Your task to perform on an android device: choose inbox layout in the gmail app Image 0: 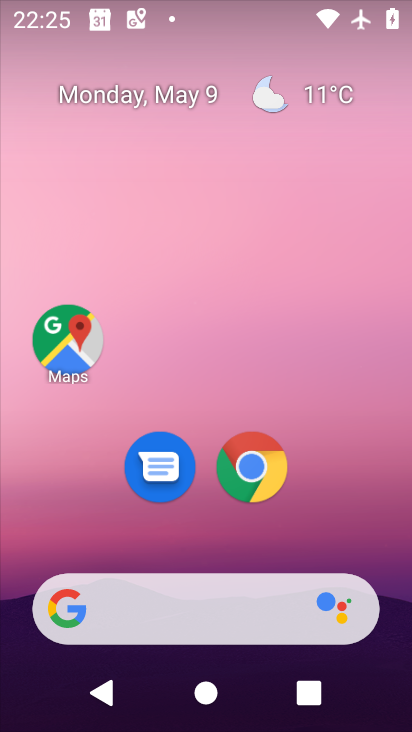
Step 0: drag from (346, 520) to (359, 247)
Your task to perform on an android device: choose inbox layout in the gmail app Image 1: 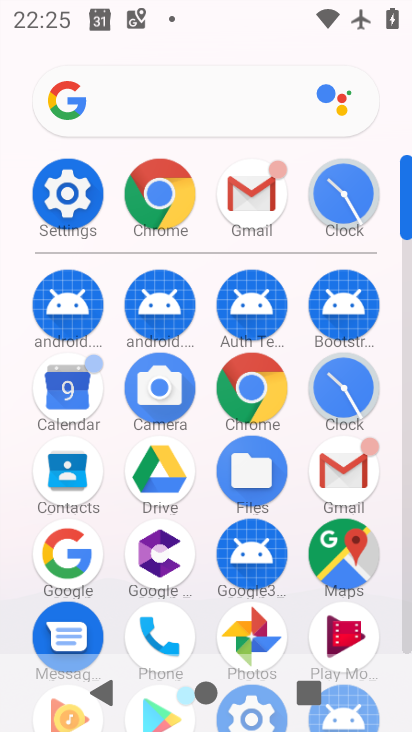
Step 1: click (254, 205)
Your task to perform on an android device: choose inbox layout in the gmail app Image 2: 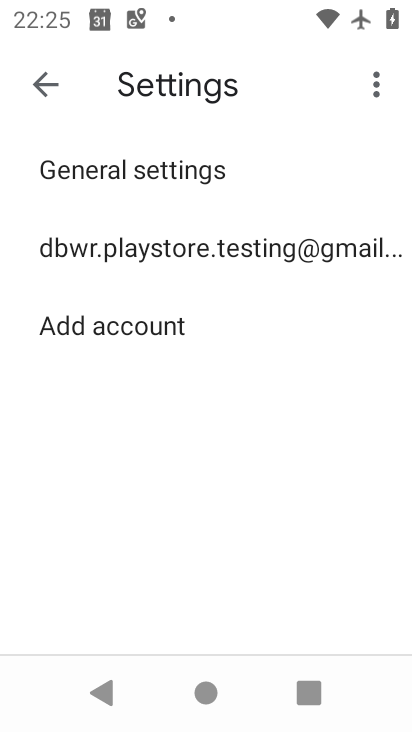
Step 2: click (163, 250)
Your task to perform on an android device: choose inbox layout in the gmail app Image 3: 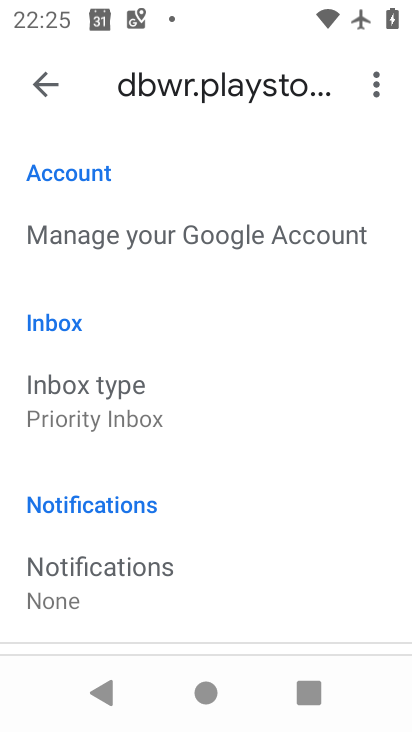
Step 3: click (106, 428)
Your task to perform on an android device: choose inbox layout in the gmail app Image 4: 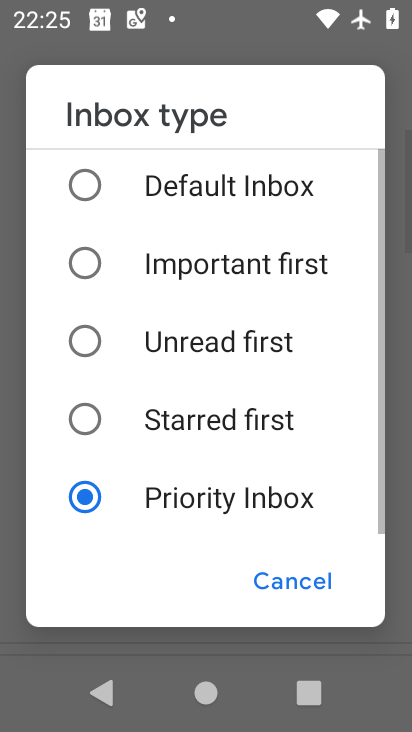
Step 4: click (152, 342)
Your task to perform on an android device: choose inbox layout in the gmail app Image 5: 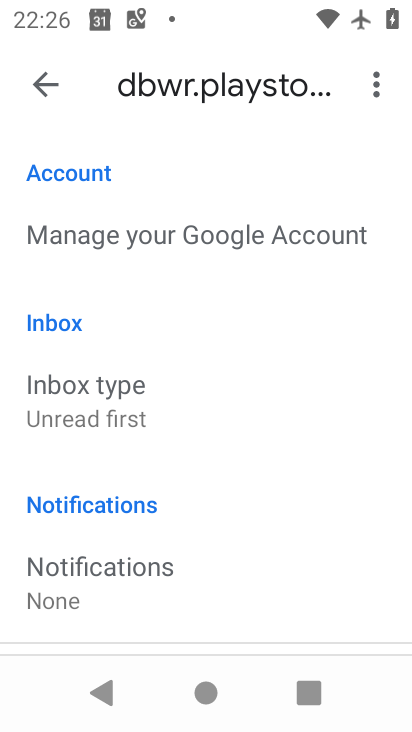
Step 5: task complete